Your task to perform on an android device: stop showing notifications on the lock screen Image 0: 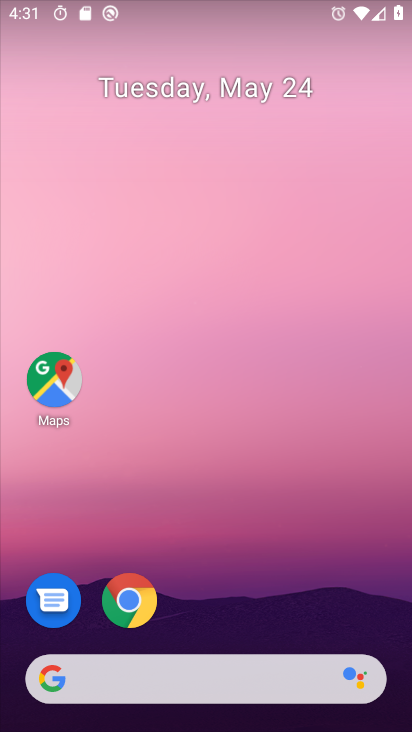
Step 0: drag from (335, 662) to (406, 66)
Your task to perform on an android device: stop showing notifications on the lock screen Image 1: 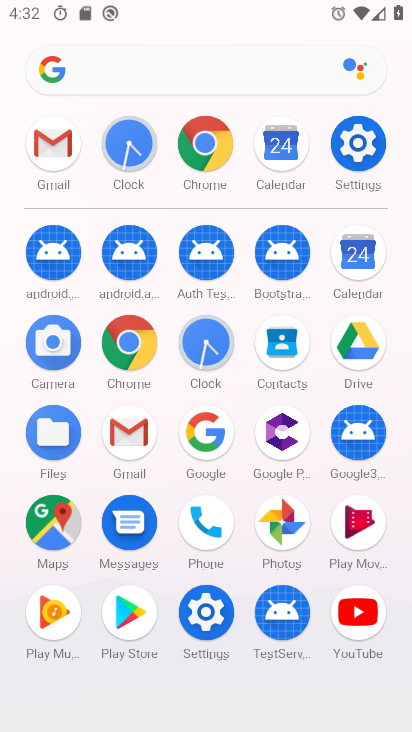
Step 1: click (337, 146)
Your task to perform on an android device: stop showing notifications on the lock screen Image 2: 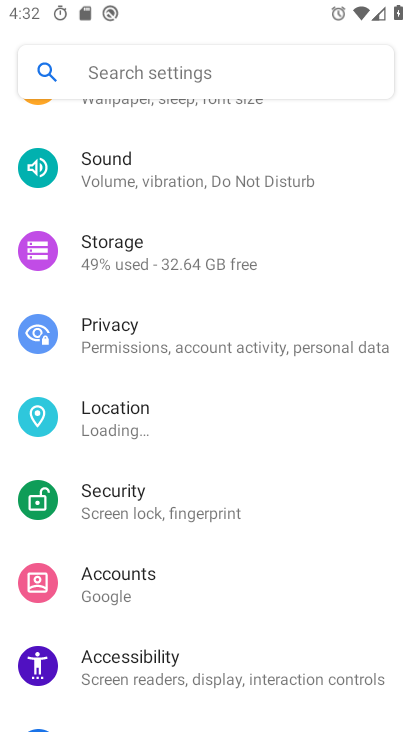
Step 2: drag from (166, 211) to (139, 729)
Your task to perform on an android device: stop showing notifications on the lock screen Image 3: 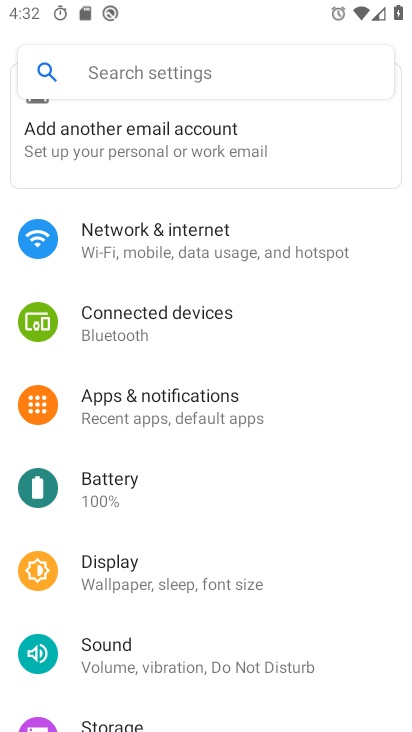
Step 3: click (176, 394)
Your task to perform on an android device: stop showing notifications on the lock screen Image 4: 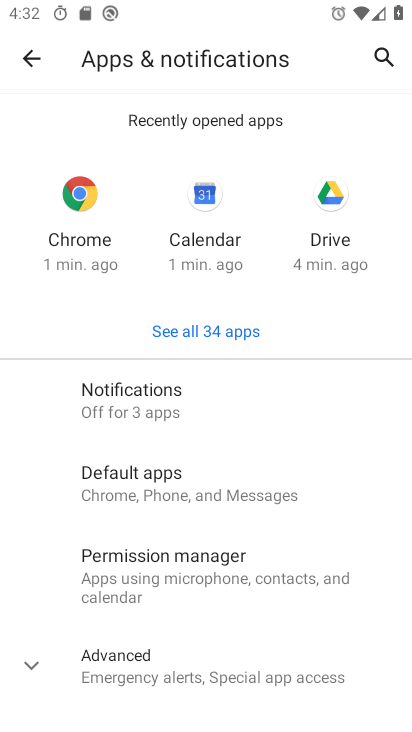
Step 4: click (172, 405)
Your task to perform on an android device: stop showing notifications on the lock screen Image 5: 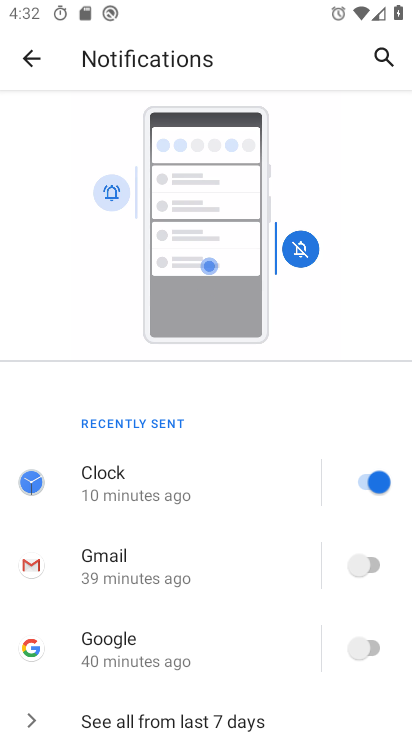
Step 5: drag from (197, 615) to (220, 168)
Your task to perform on an android device: stop showing notifications on the lock screen Image 6: 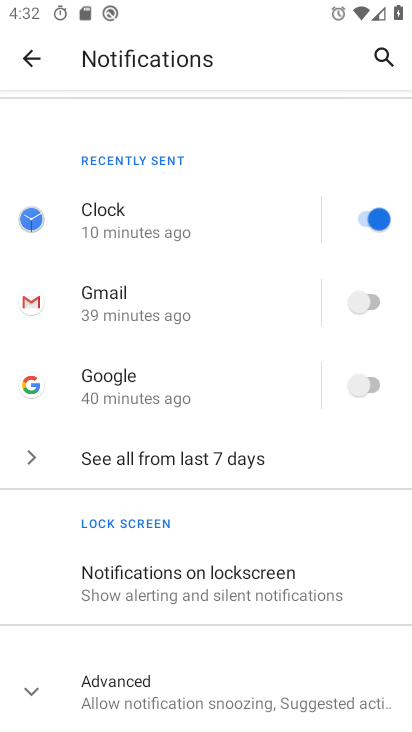
Step 6: click (207, 577)
Your task to perform on an android device: stop showing notifications on the lock screen Image 7: 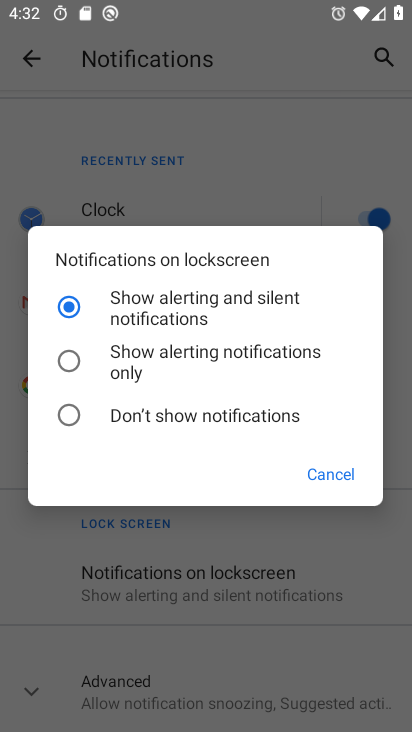
Step 7: click (66, 405)
Your task to perform on an android device: stop showing notifications on the lock screen Image 8: 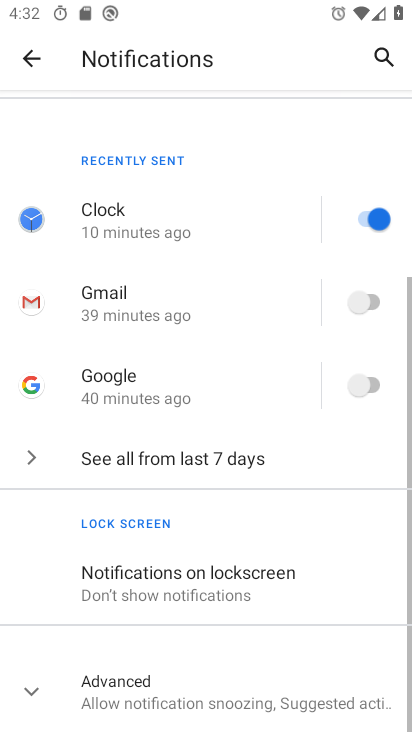
Step 8: task complete